Your task to perform on an android device: allow cookies in the chrome app Image 0: 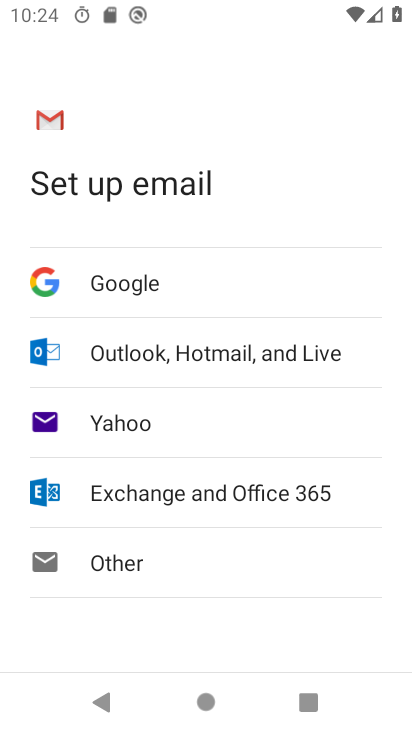
Step 0: press home button
Your task to perform on an android device: allow cookies in the chrome app Image 1: 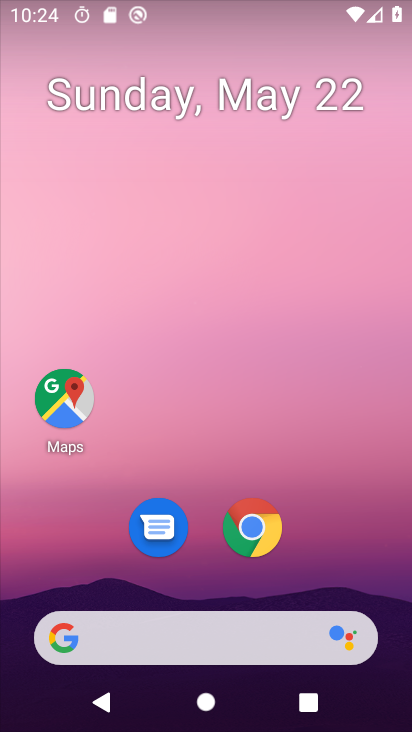
Step 1: drag from (219, 668) to (245, 67)
Your task to perform on an android device: allow cookies in the chrome app Image 2: 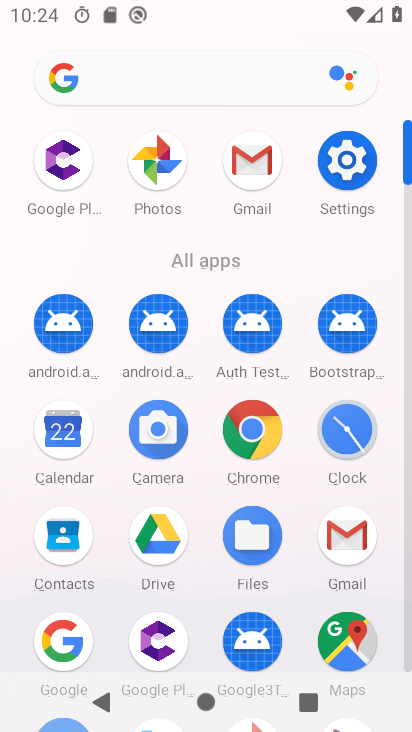
Step 2: click (257, 456)
Your task to perform on an android device: allow cookies in the chrome app Image 3: 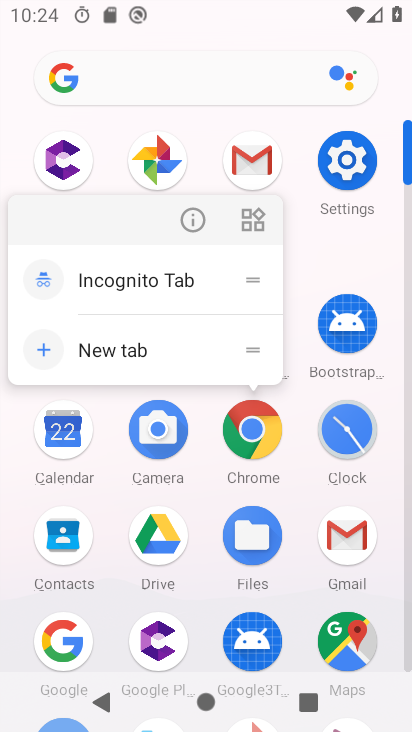
Step 3: click (258, 448)
Your task to perform on an android device: allow cookies in the chrome app Image 4: 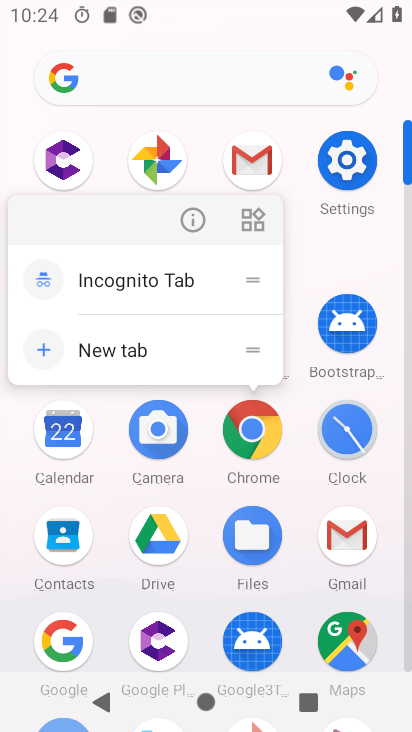
Step 4: click (270, 470)
Your task to perform on an android device: allow cookies in the chrome app Image 5: 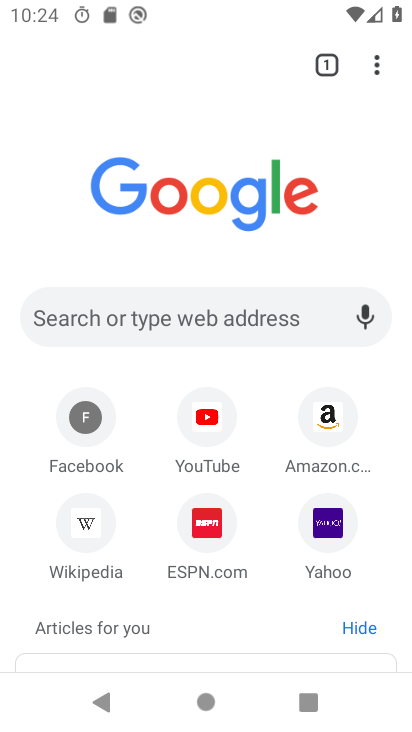
Step 5: click (378, 69)
Your task to perform on an android device: allow cookies in the chrome app Image 6: 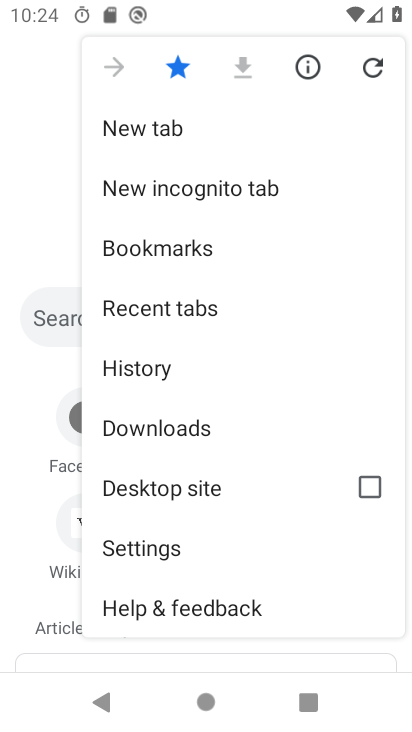
Step 6: click (214, 547)
Your task to perform on an android device: allow cookies in the chrome app Image 7: 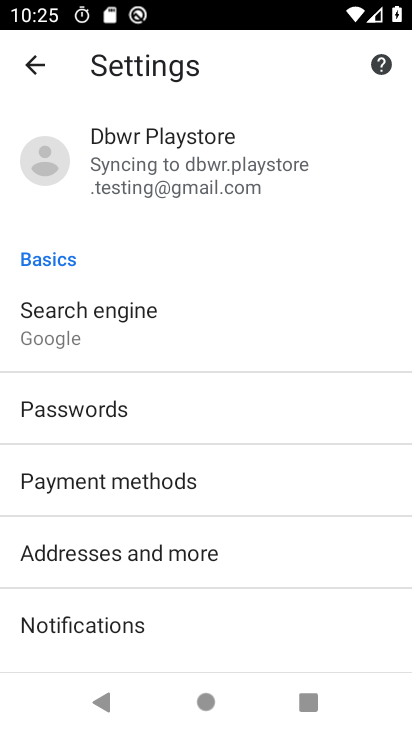
Step 7: drag from (137, 572) to (256, 166)
Your task to perform on an android device: allow cookies in the chrome app Image 8: 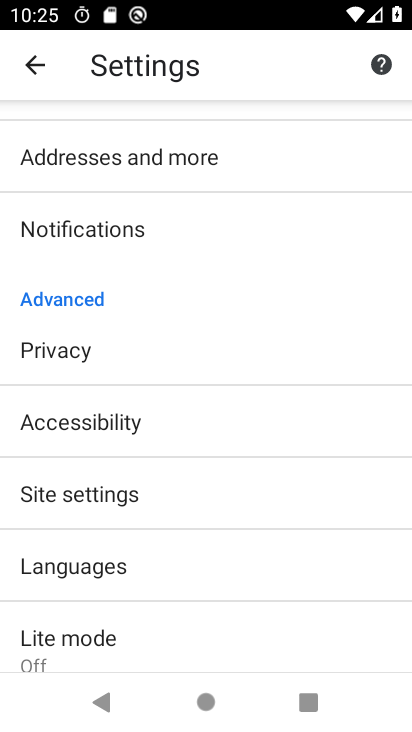
Step 8: click (116, 496)
Your task to perform on an android device: allow cookies in the chrome app Image 9: 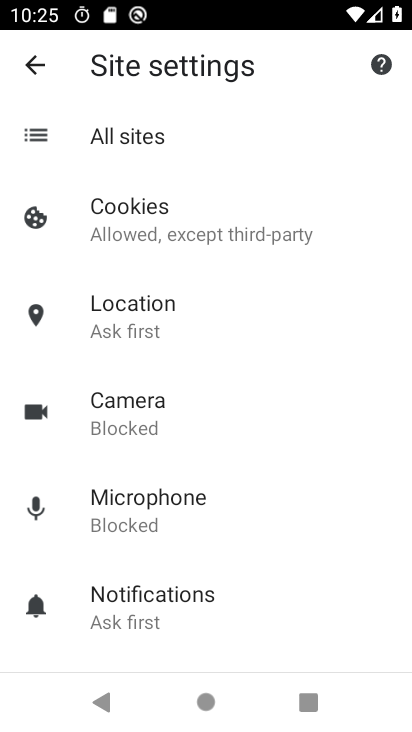
Step 9: click (199, 228)
Your task to perform on an android device: allow cookies in the chrome app Image 10: 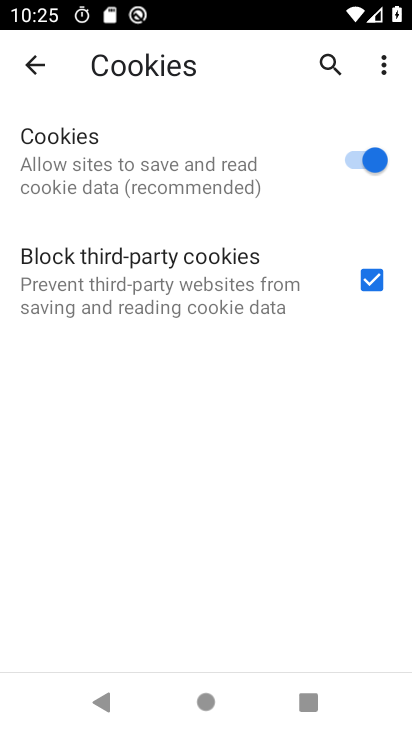
Step 10: task complete